Your task to perform on an android device: Go to Amazon Image 0: 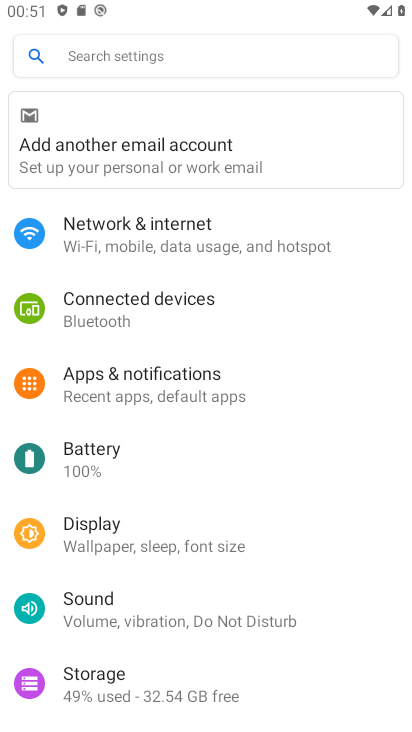
Step 0: press home button
Your task to perform on an android device: Go to Amazon Image 1: 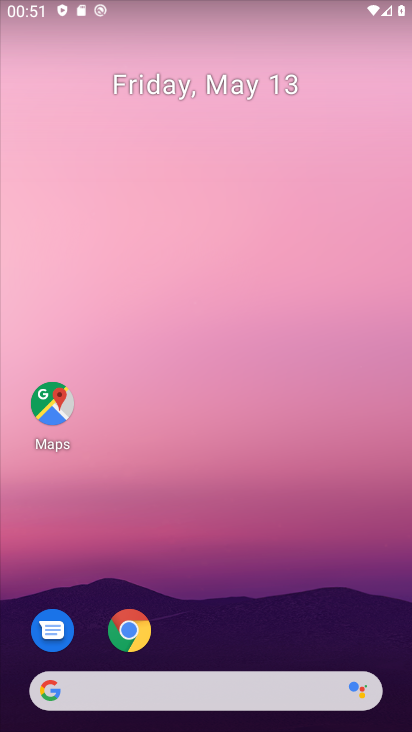
Step 1: drag from (237, 718) to (218, 298)
Your task to perform on an android device: Go to Amazon Image 2: 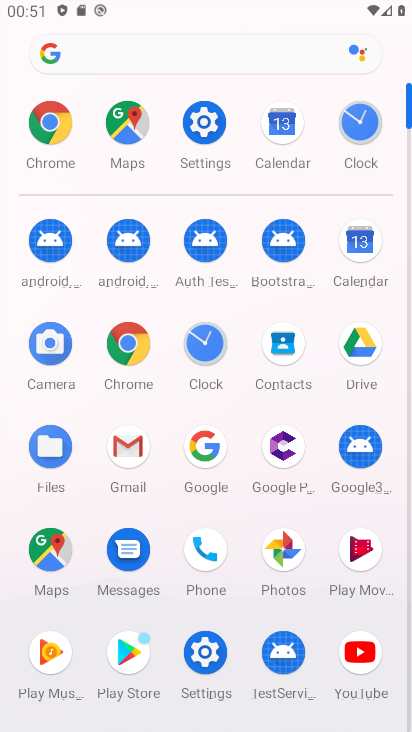
Step 2: click (65, 122)
Your task to perform on an android device: Go to Amazon Image 3: 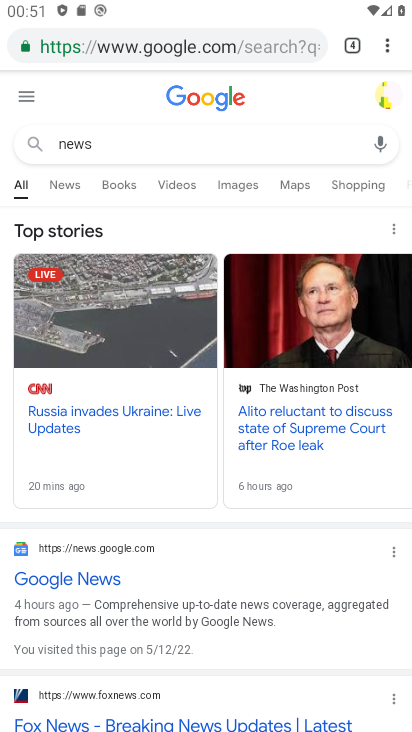
Step 3: click (354, 45)
Your task to perform on an android device: Go to Amazon Image 4: 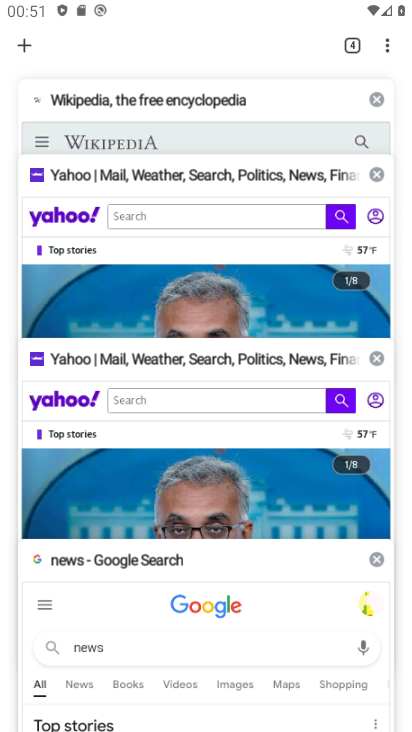
Step 4: click (26, 44)
Your task to perform on an android device: Go to Amazon Image 5: 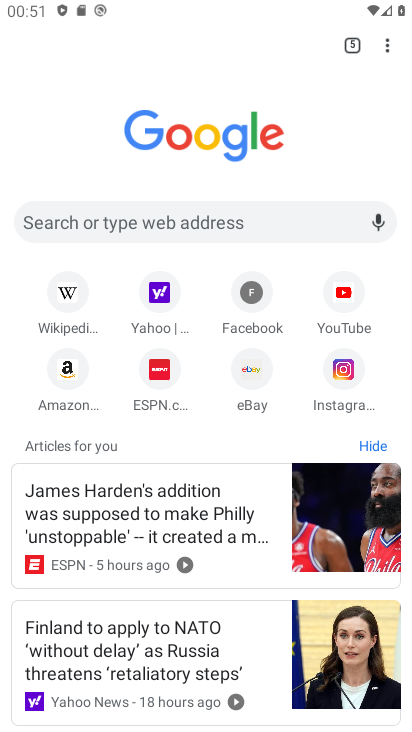
Step 5: click (63, 361)
Your task to perform on an android device: Go to Amazon Image 6: 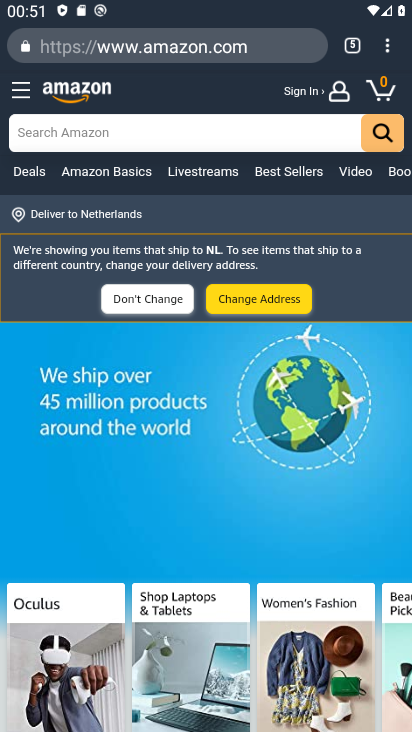
Step 6: task complete